Your task to perform on an android device: toggle notification dots Image 0: 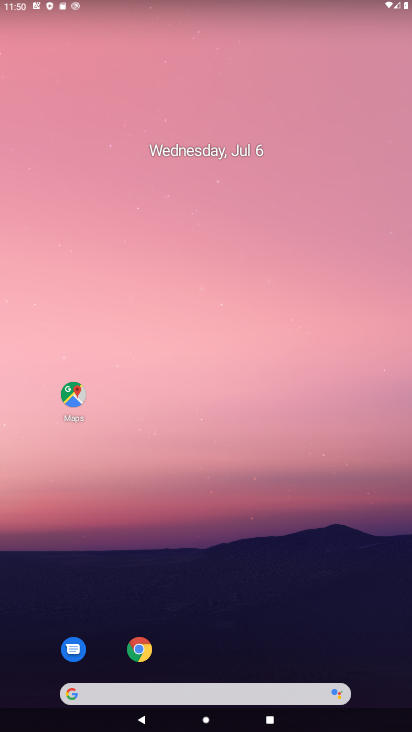
Step 0: drag from (32, 700) to (283, 6)
Your task to perform on an android device: toggle notification dots Image 1: 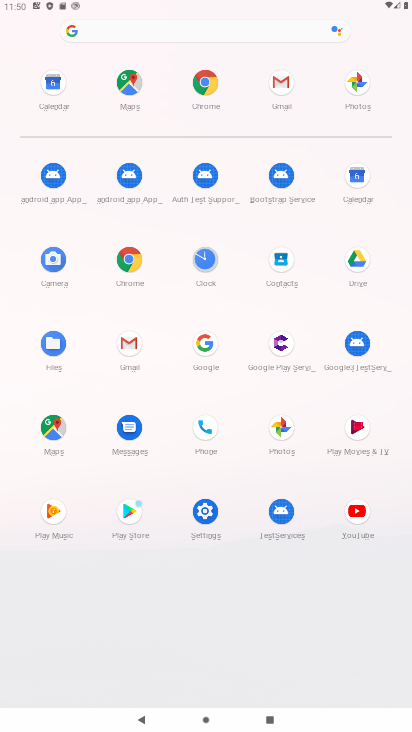
Step 1: click (207, 511)
Your task to perform on an android device: toggle notification dots Image 2: 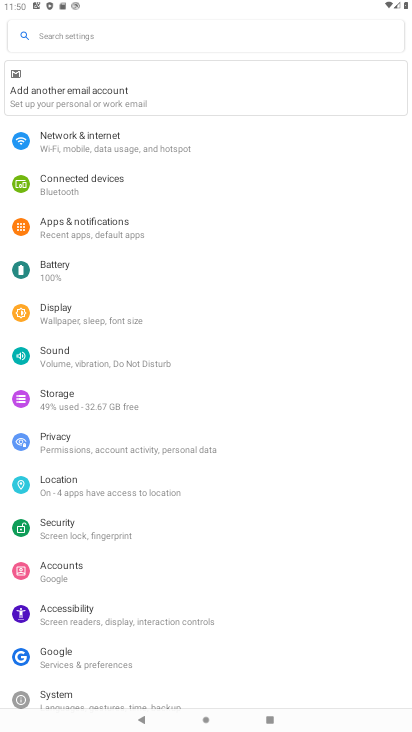
Step 2: click (72, 353)
Your task to perform on an android device: toggle notification dots Image 3: 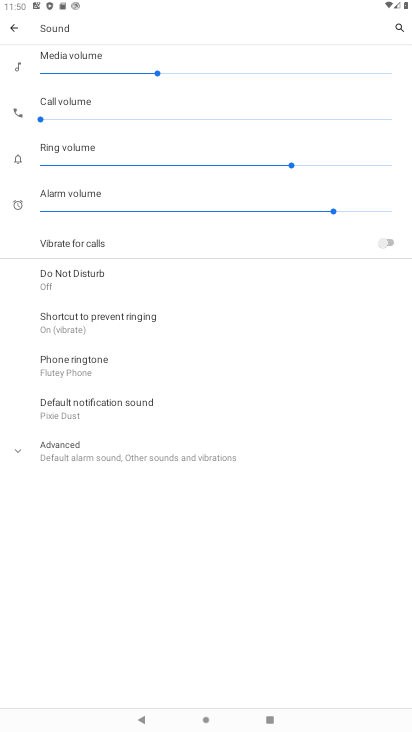
Step 3: task complete